Your task to perform on an android device: turn off sleep mode Image 0: 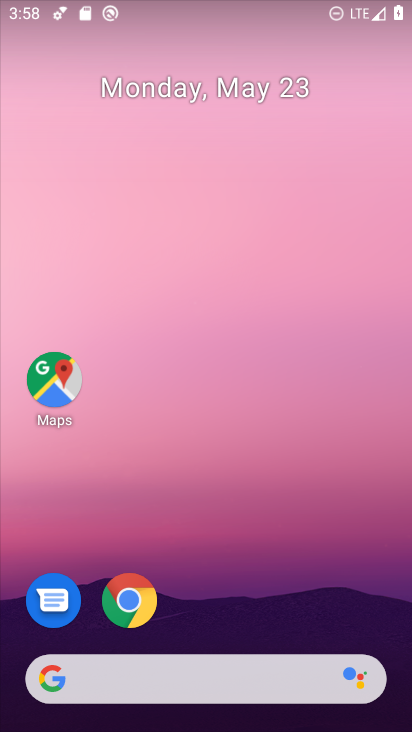
Step 0: drag from (279, 647) to (278, 3)
Your task to perform on an android device: turn off sleep mode Image 1: 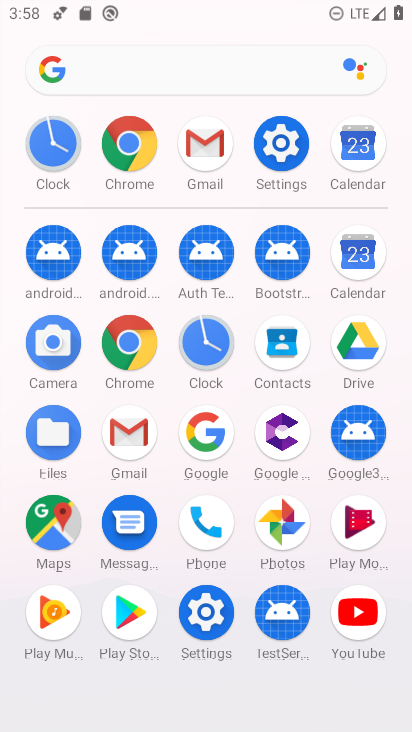
Step 1: click (282, 141)
Your task to perform on an android device: turn off sleep mode Image 2: 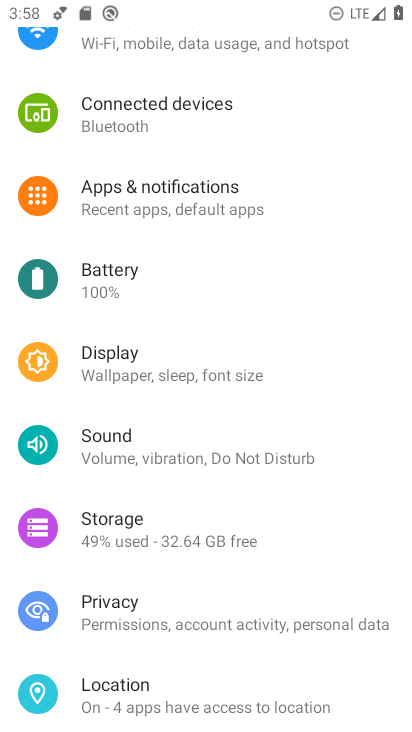
Step 2: click (119, 364)
Your task to perform on an android device: turn off sleep mode Image 3: 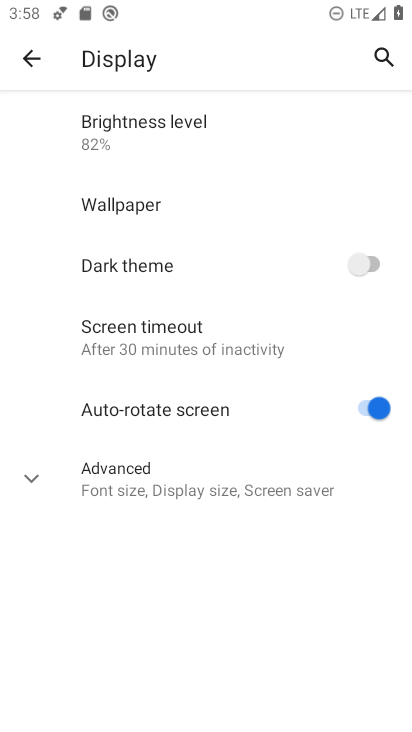
Step 3: click (28, 479)
Your task to perform on an android device: turn off sleep mode Image 4: 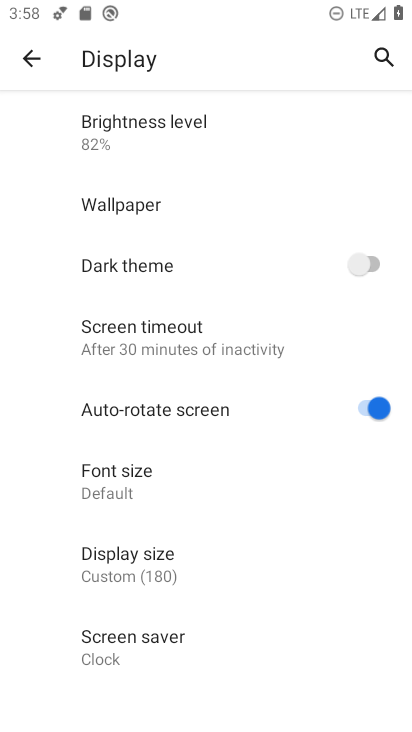
Step 4: task complete